Your task to perform on an android device: open chrome and create a bookmark for the current page Image 0: 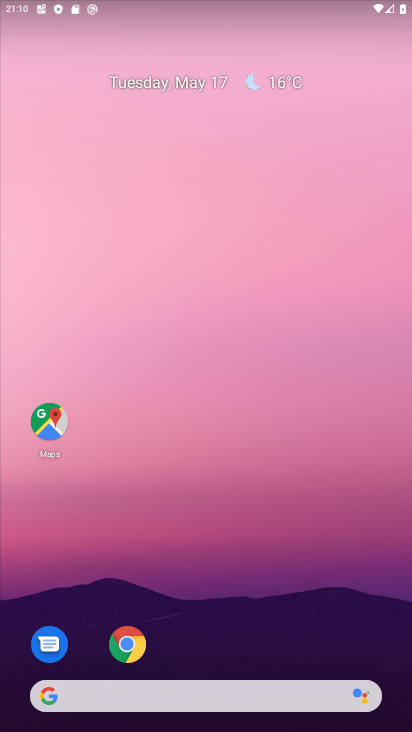
Step 0: click (128, 642)
Your task to perform on an android device: open chrome and create a bookmark for the current page Image 1: 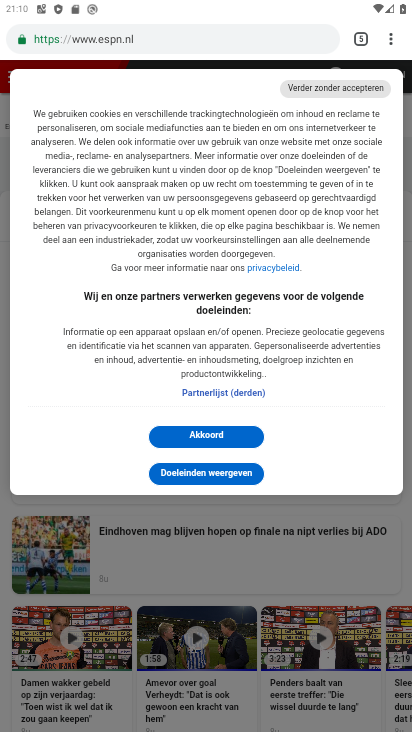
Step 1: task complete